Your task to perform on an android device: add a contact Image 0: 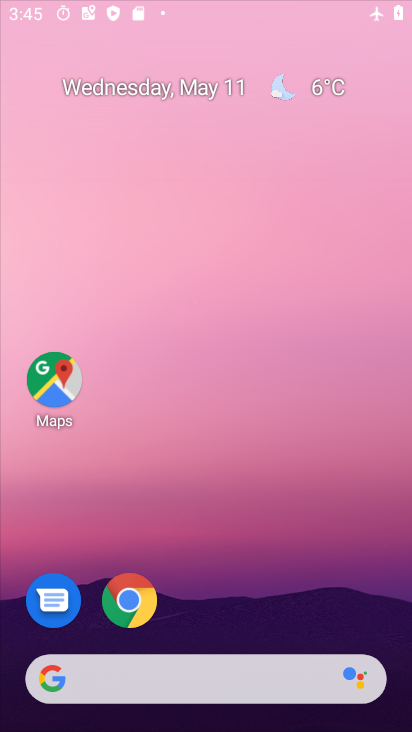
Step 0: click (241, 256)
Your task to perform on an android device: add a contact Image 1: 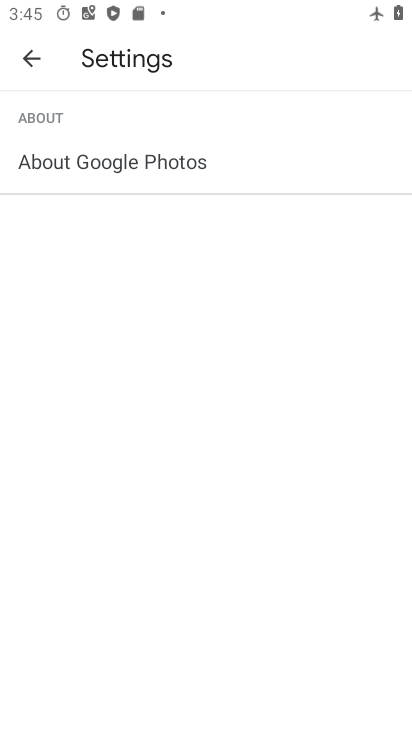
Step 1: press back button
Your task to perform on an android device: add a contact Image 2: 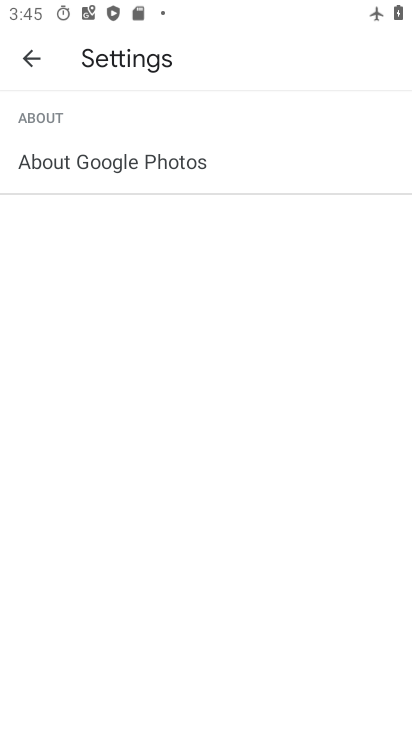
Step 2: press back button
Your task to perform on an android device: add a contact Image 3: 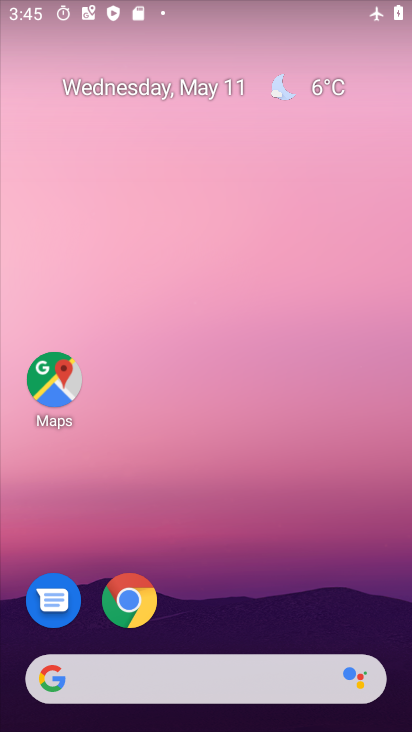
Step 3: drag from (335, 635) to (153, 127)
Your task to perform on an android device: add a contact Image 4: 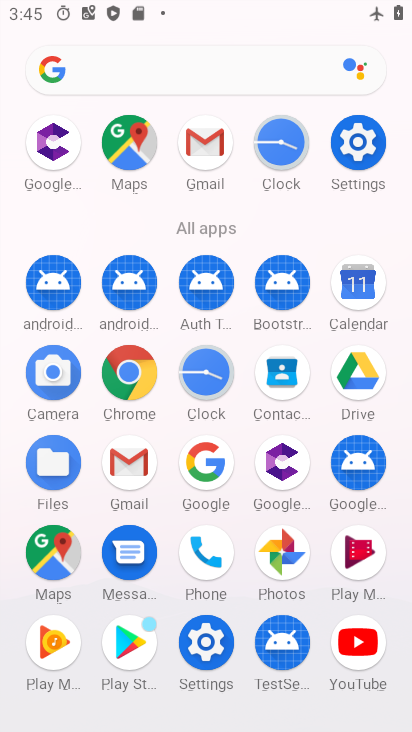
Step 4: click (280, 375)
Your task to perform on an android device: add a contact Image 5: 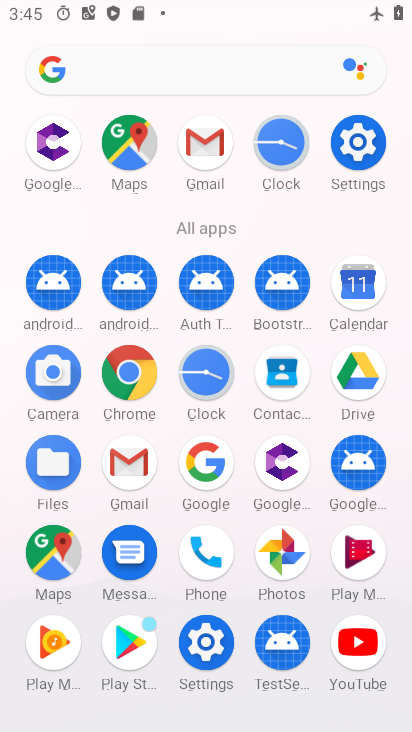
Step 5: click (280, 375)
Your task to perform on an android device: add a contact Image 6: 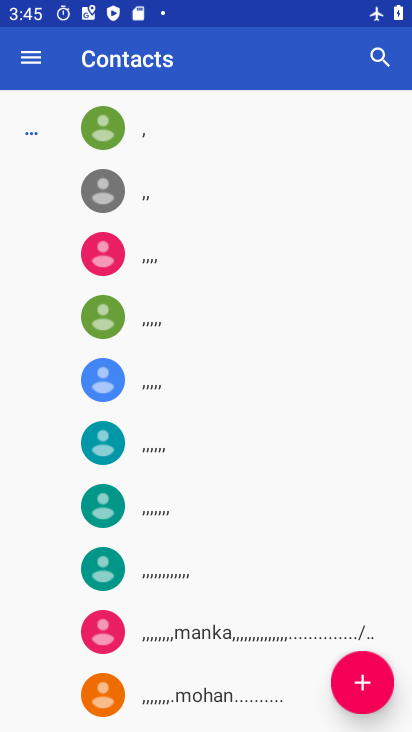
Step 6: click (356, 680)
Your task to perform on an android device: add a contact Image 7: 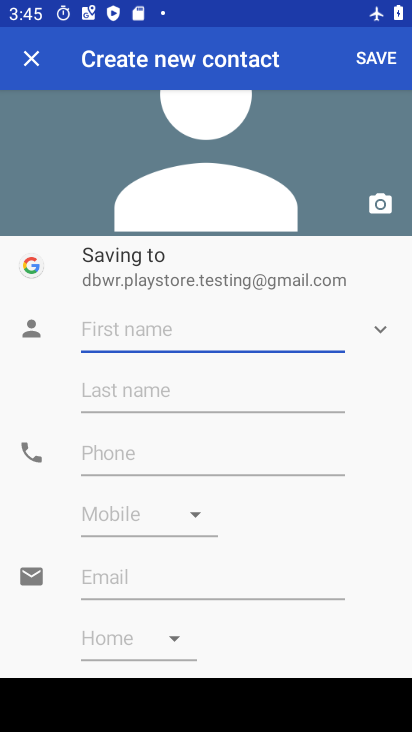
Step 7: click (104, 327)
Your task to perform on an android device: add a contact Image 8: 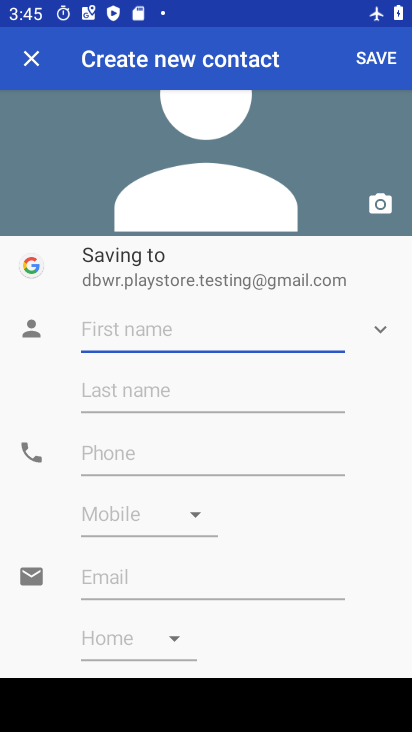
Step 8: type "uhduhaschuc"
Your task to perform on an android device: add a contact Image 9: 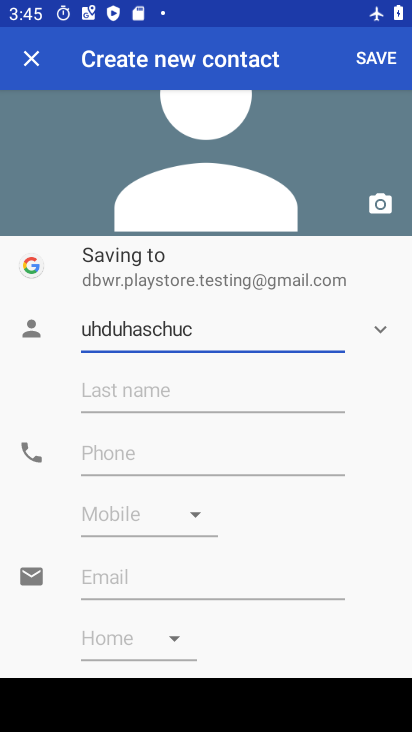
Step 9: click (121, 463)
Your task to perform on an android device: add a contact Image 10: 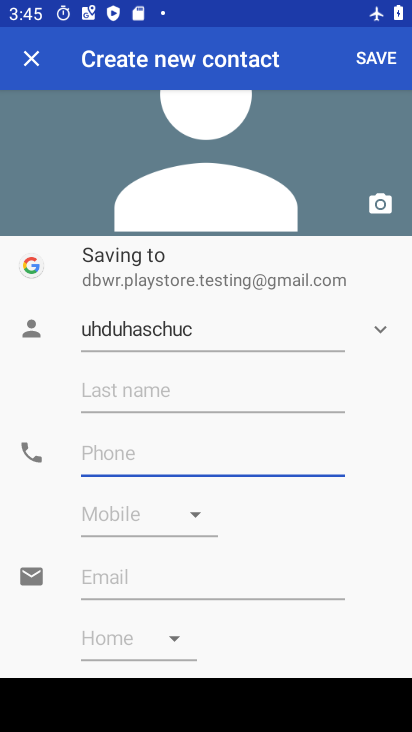
Step 10: type "765786538575873"
Your task to perform on an android device: add a contact Image 11: 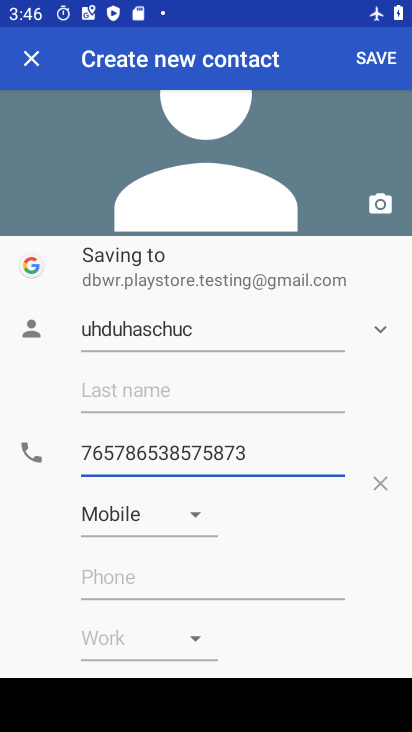
Step 11: click (383, 56)
Your task to perform on an android device: add a contact Image 12: 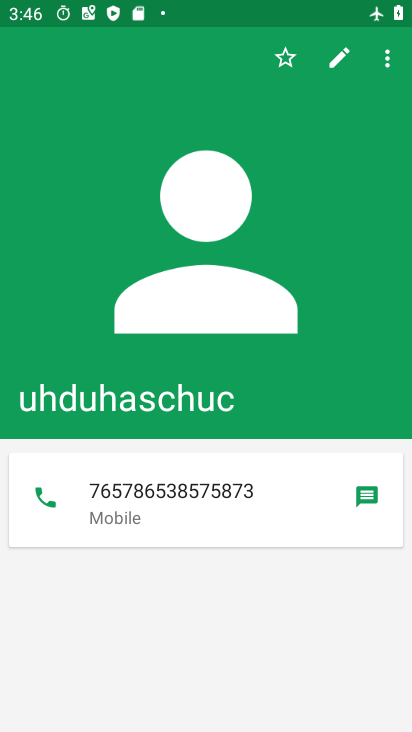
Step 12: task complete